Your task to perform on an android device: Look up the best rated kitchen knives on Amazon. Image 0: 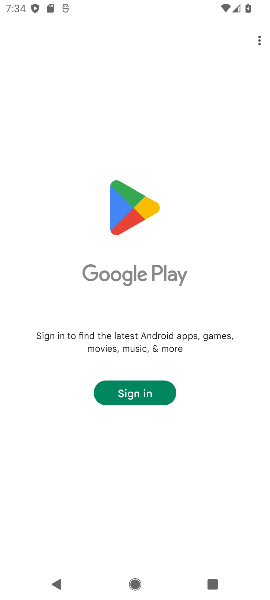
Step 0: press home button
Your task to perform on an android device: Look up the best rated kitchen knives on Amazon. Image 1: 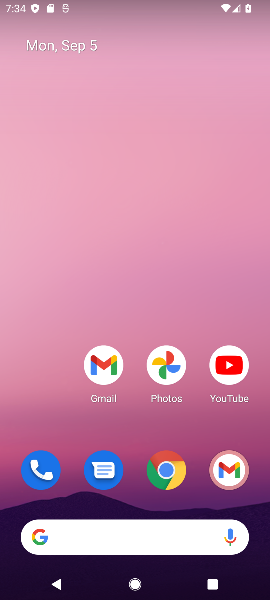
Step 1: click (141, 535)
Your task to perform on an android device: Look up the best rated kitchen knives on Amazon. Image 2: 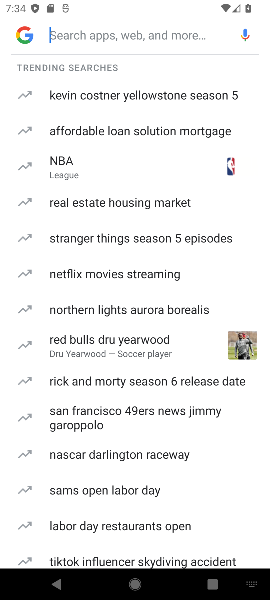
Step 2: type "amazon"
Your task to perform on an android device: Look up the best rated kitchen knives on Amazon. Image 3: 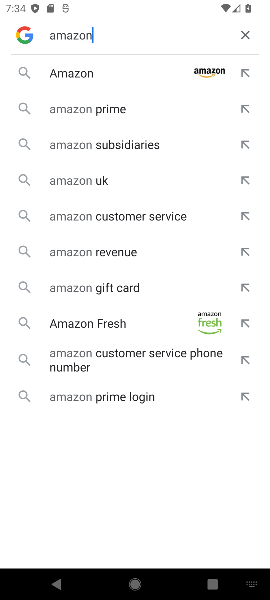
Step 3: click (82, 71)
Your task to perform on an android device: Look up the best rated kitchen knives on Amazon. Image 4: 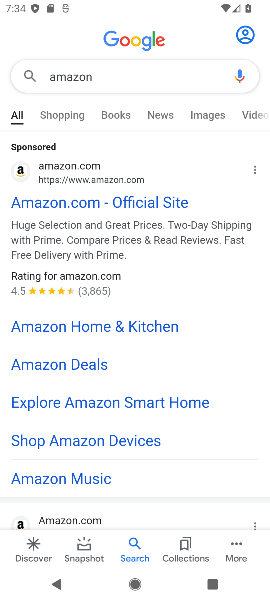
Step 4: click (86, 198)
Your task to perform on an android device: Look up the best rated kitchen knives on Amazon. Image 5: 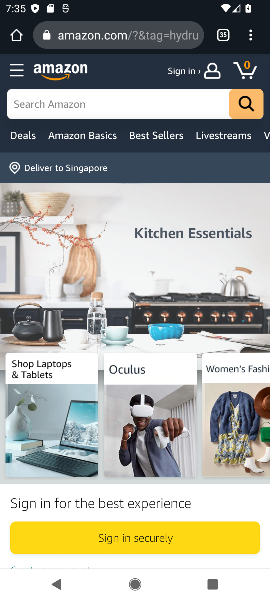
Step 5: click (133, 102)
Your task to perform on an android device: Look up the best rated kitchen knives on Amazon. Image 6: 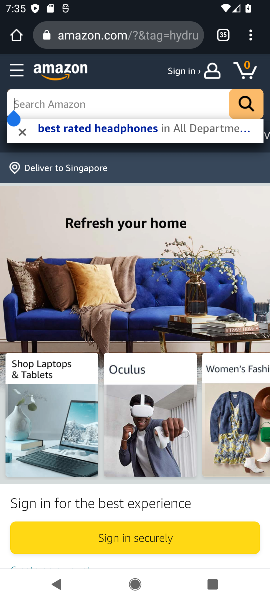
Step 6: type "the best selling books"
Your task to perform on an android device: Look up the best rated kitchen knives on Amazon. Image 7: 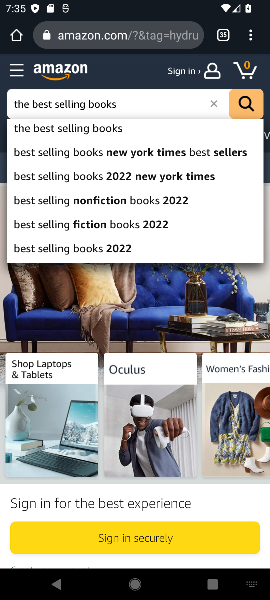
Step 7: click (214, 100)
Your task to perform on an android device: Look up the best rated kitchen knives on Amazon. Image 8: 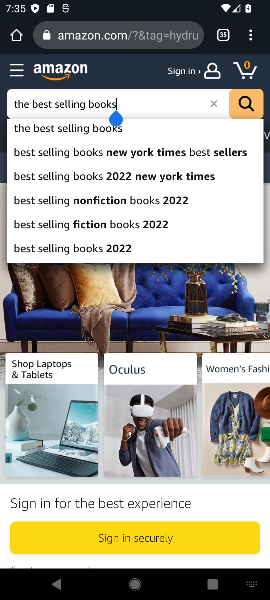
Step 8: click (213, 105)
Your task to perform on an android device: Look up the best rated kitchen knives on Amazon. Image 9: 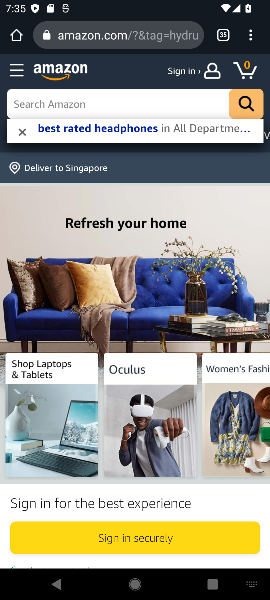
Step 9: type "best rated kiychen knives"
Your task to perform on an android device: Look up the best rated kitchen knives on Amazon. Image 10: 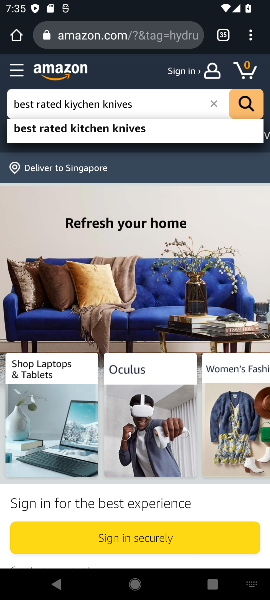
Step 10: click (148, 118)
Your task to perform on an android device: Look up the best rated kitchen knives on Amazon. Image 11: 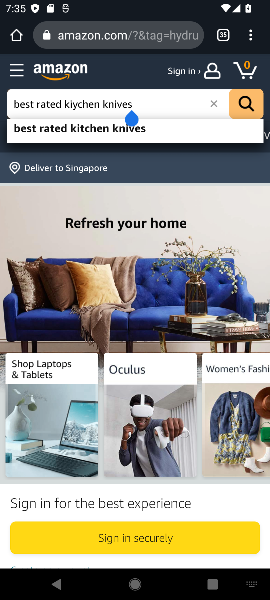
Step 11: click (165, 130)
Your task to perform on an android device: Look up the best rated kitchen knives on Amazon. Image 12: 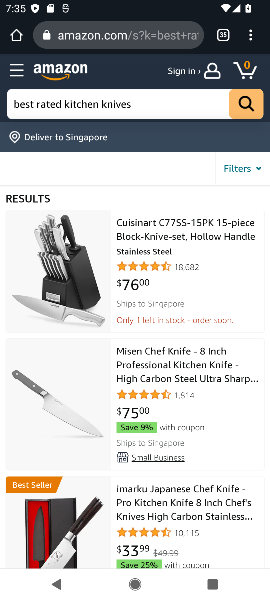
Step 12: task complete